Your task to perform on an android device: Play the last video I watched on Youtube Image 0: 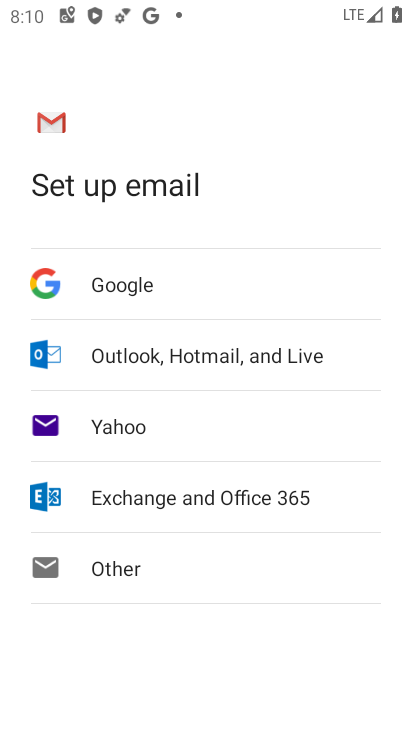
Step 0: press home button
Your task to perform on an android device: Play the last video I watched on Youtube Image 1: 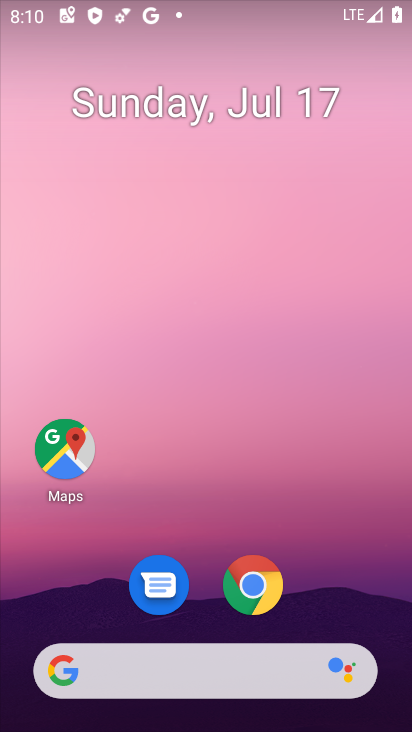
Step 1: drag from (333, 606) to (309, 0)
Your task to perform on an android device: Play the last video I watched on Youtube Image 2: 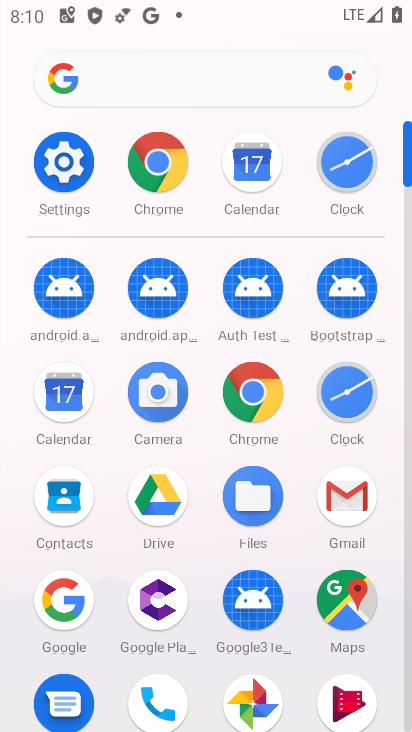
Step 2: drag from (306, 455) to (278, 41)
Your task to perform on an android device: Play the last video I watched on Youtube Image 3: 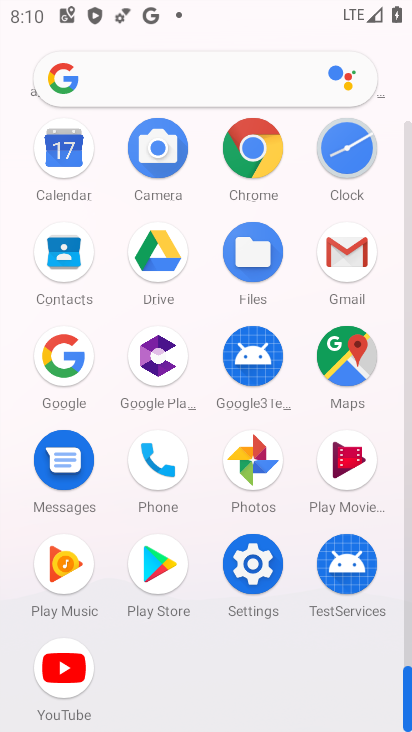
Step 3: click (61, 667)
Your task to perform on an android device: Play the last video I watched on Youtube Image 4: 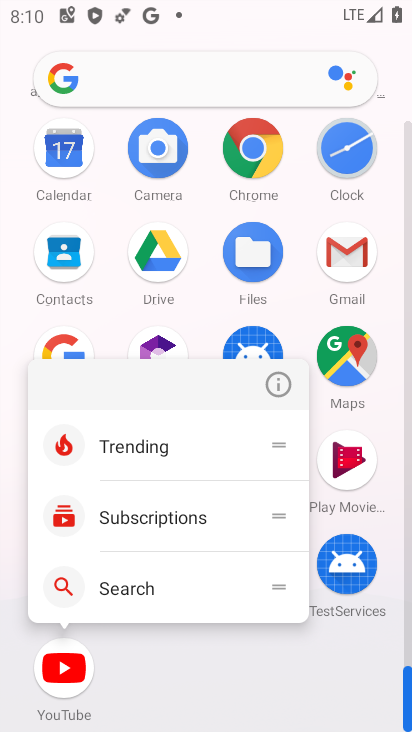
Step 4: click (61, 667)
Your task to perform on an android device: Play the last video I watched on Youtube Image 5: 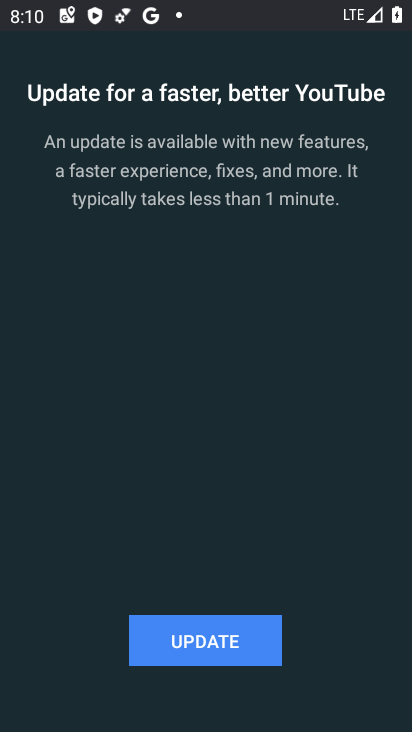
Step 5: click (161, 637)
Your task to perform on an android device: Play the last video I watched on Youtube Image 6: 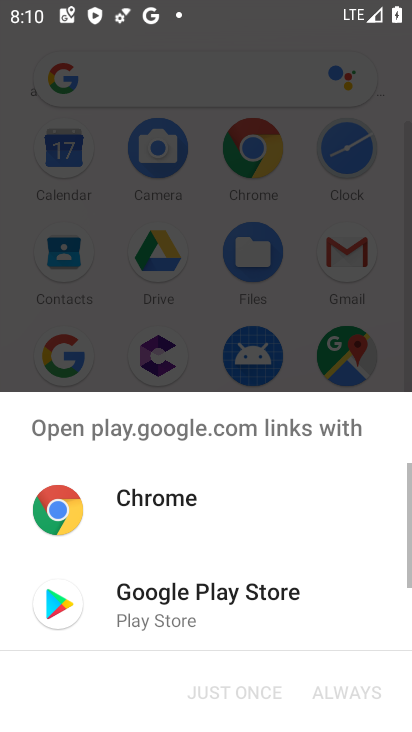
Step 6: click (171, 599)
Your task to perform on an android device: Play the last video I watched on Youtube Image 7: 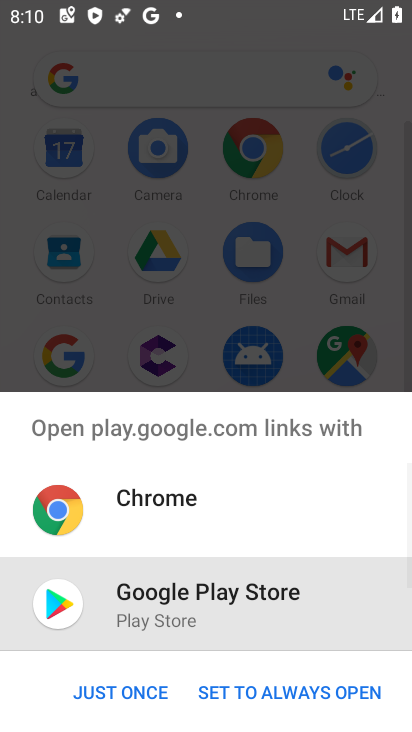
Step 7: click (142, 693)
Your task to perform on an android device: Play the last video I watched on Youtube Image 8: 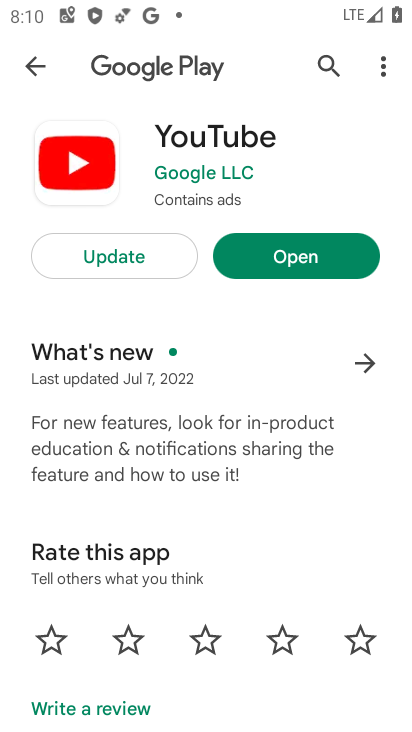
Step 8: click (154, 249)
Your task to perform on an android device: Play the last video I watched on Youtube Image 9: 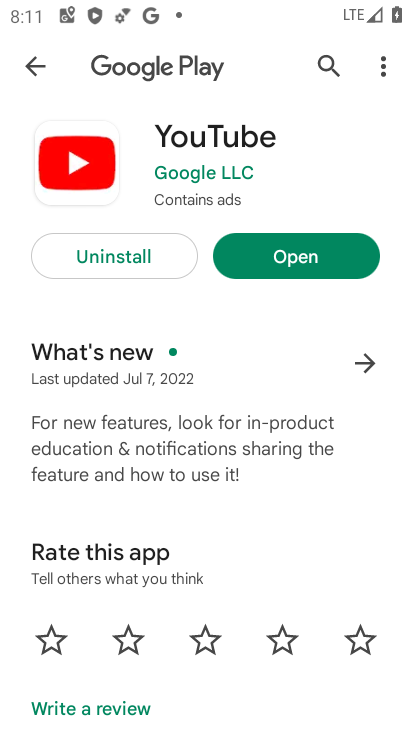
Step 9: click (267, 250)
Your task to perform on an android device: Play the last video I watched on Youtube Image 10: 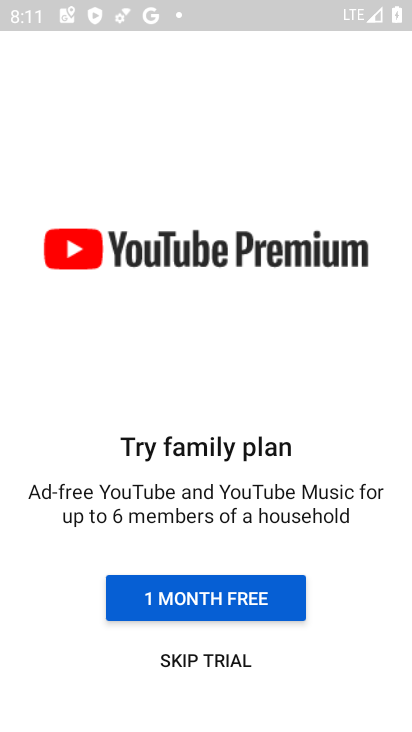
Step 10: click (233, 655)
Your task to perform on an android device: Play the last video I watched on Youtube Image 11: 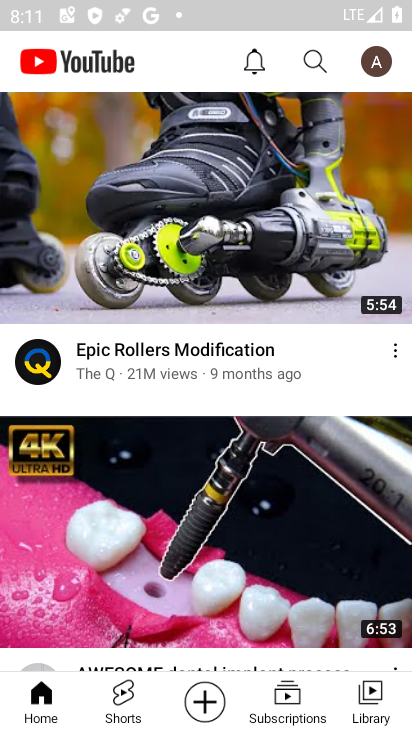
Step 11: click (364, 682)
Your task to perform on an android device: Play the last video I watched on Youtube Image 12: 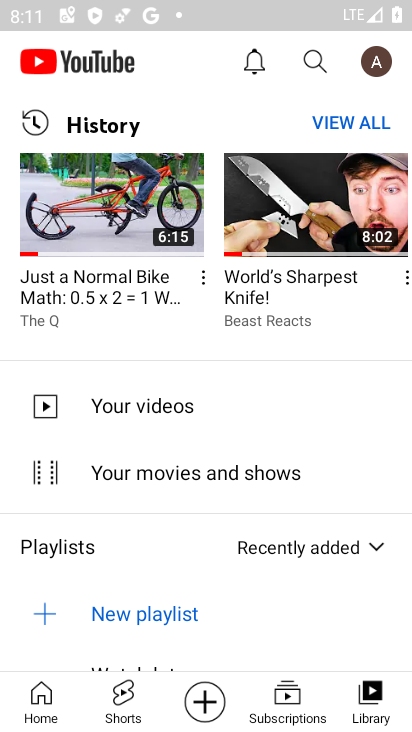
Step 12: click (111, 225)
Your task to perform on an android device: Play the last video I watched on Youtube Image 13: 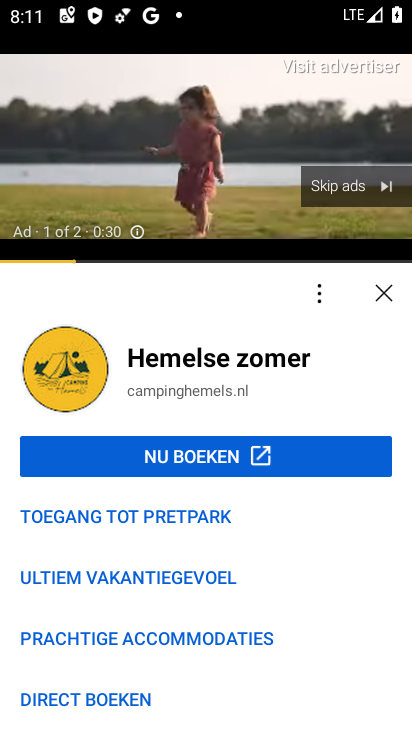
Step 13: click (335, 190)
Your task to perform on an android device: Play the last video I watched on Youtube Image 14: 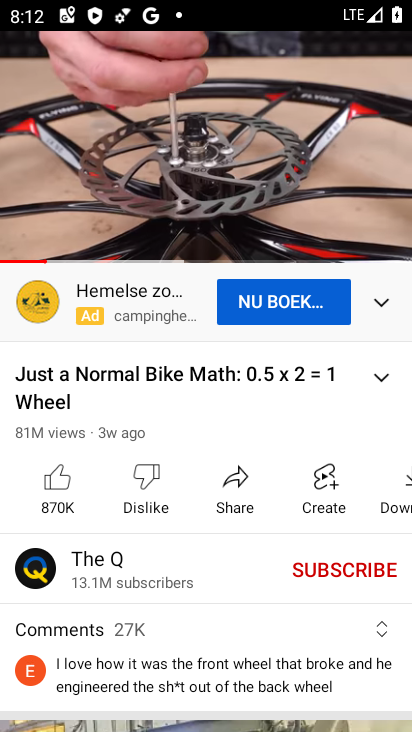
Step 14: task complete